Your task to perform on an android device: delete a single message in the gmail app Image 0: 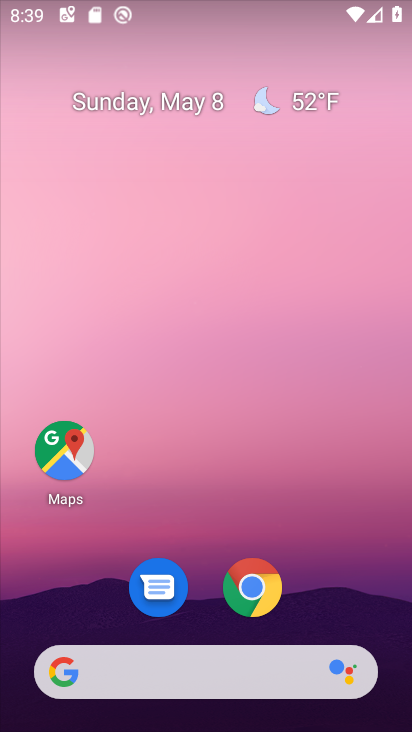
Step 0: drag from (348, 542) to (269, 159)
Your task to perform on an android device: delete a single message in the gmail app Image 1: 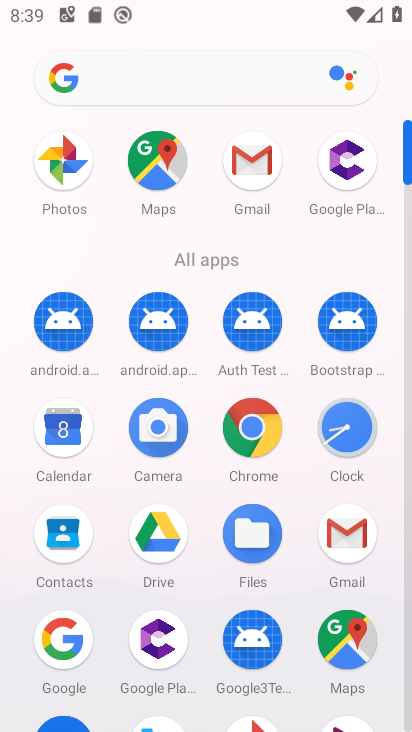
Step 1: click (250, 170)
Your task to perform on an android device: delete a single message in the gmail app Image 2: 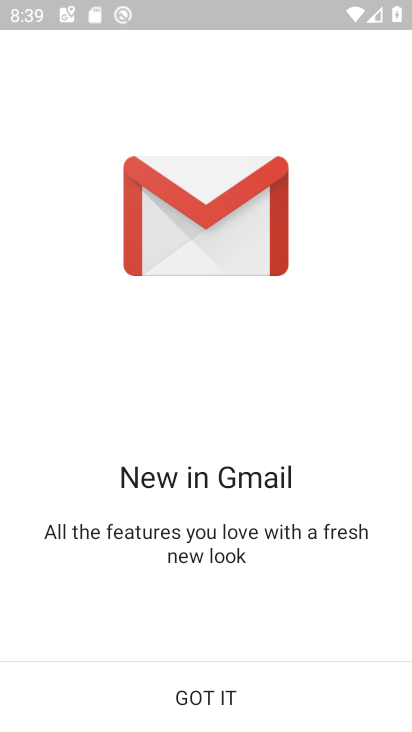
Step 2: click (223, 687)
Your task to perform on an android device: delete a single message in the gmail app Image 3: 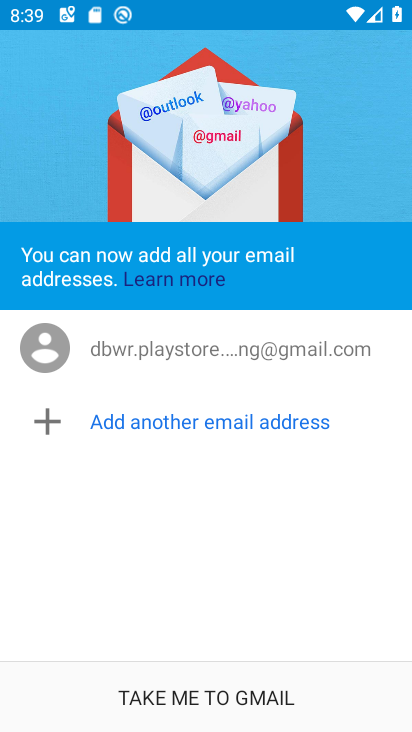
Step 3: click (221, 689)
Your task to perform on an android device: delete a single message in the gmail app Image 4: 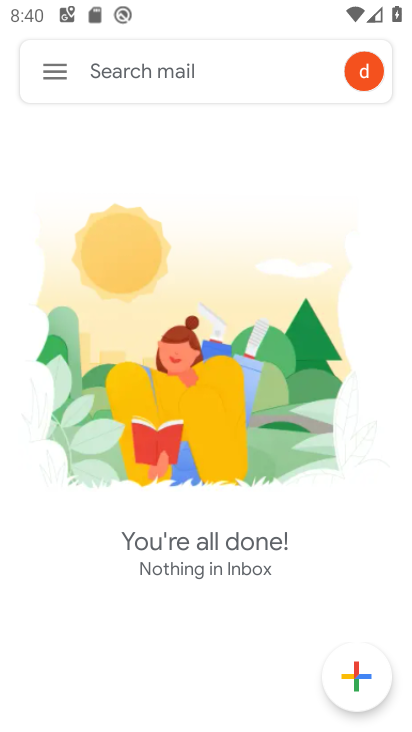
Step 4: click (47, 81)
Your task to perform on an android device: delete a single message in the gmail app Image 5: 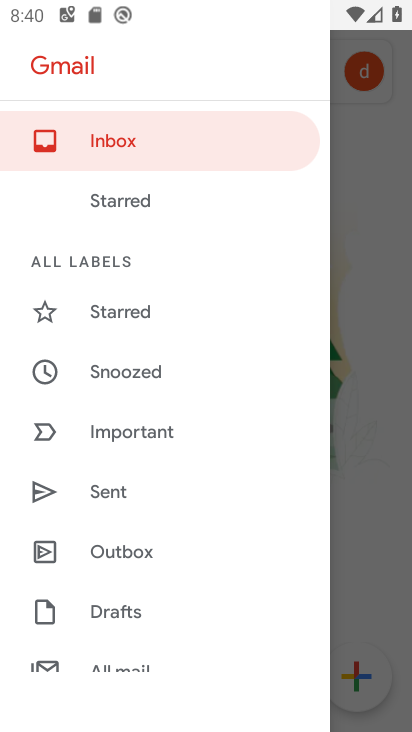
Step 5: drag from (246, 607) to (234, 162)
Your task to perform on an android device: delete a single message in the gmail app Image 6: 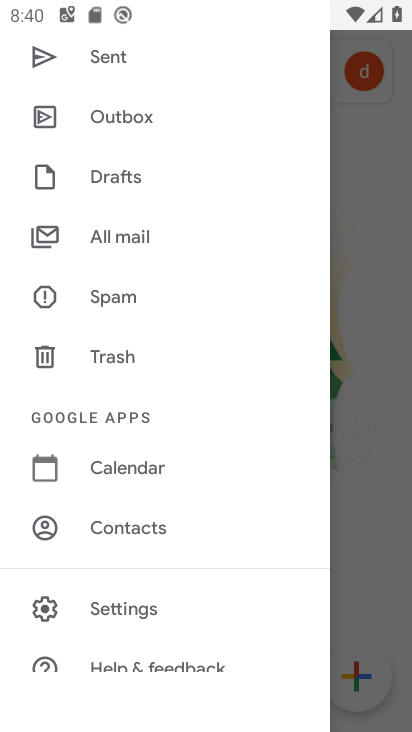
Step 6: click (183, 231)
Your task to perform on an android device: delete a single message in the gmail app Image 7: 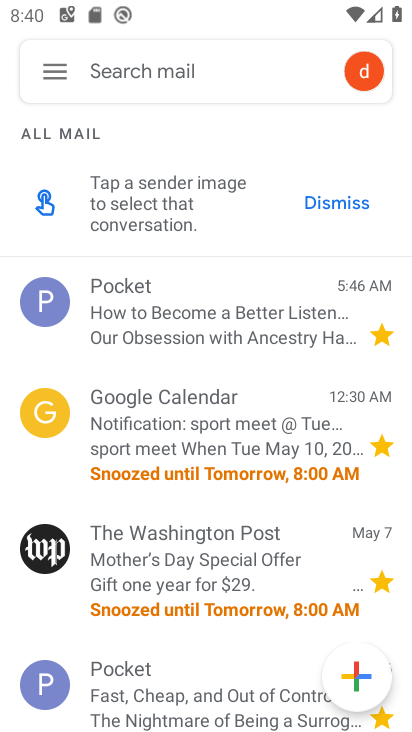
Step 7: click (216, 291)
Your task to perform on an android device: delete a single message in the gmail app Image 8: 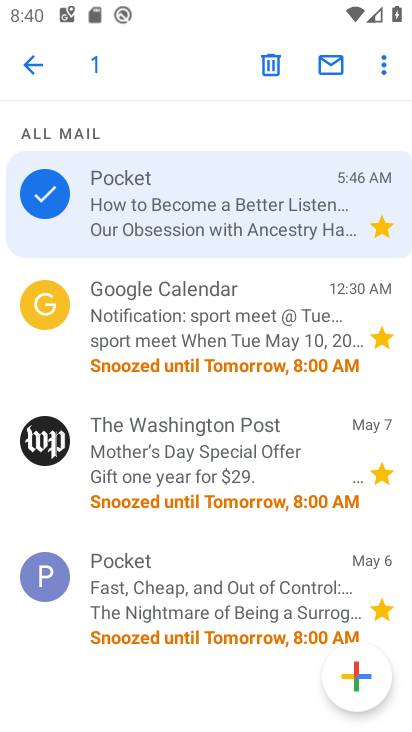
Step 8: click (270, 58)
Your task to perform on an android device: delete a single message in the gmail app Image 9: 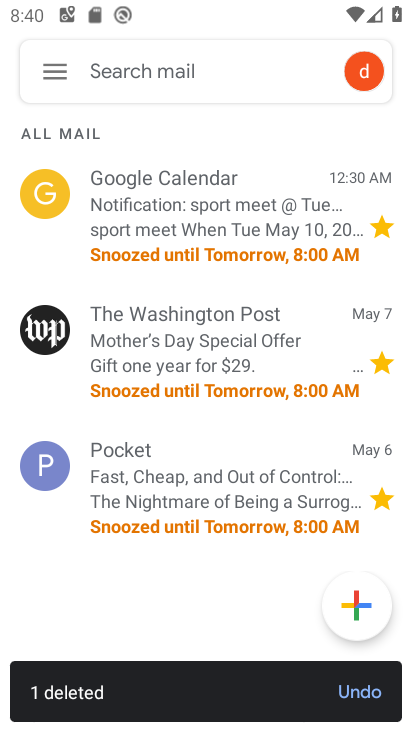
Step 9: task complete